Your task to perform on an android device: Show me popular videos on Youtube Image 0: 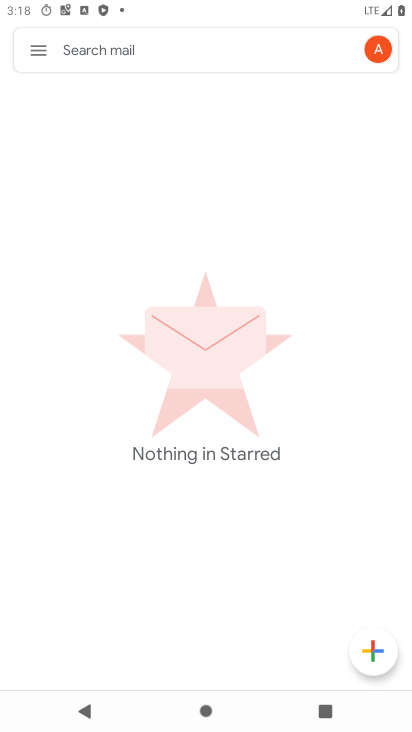
Step 0: press home button
Your task to perform on an android device: Show me popular videos on Youtube Image 1: 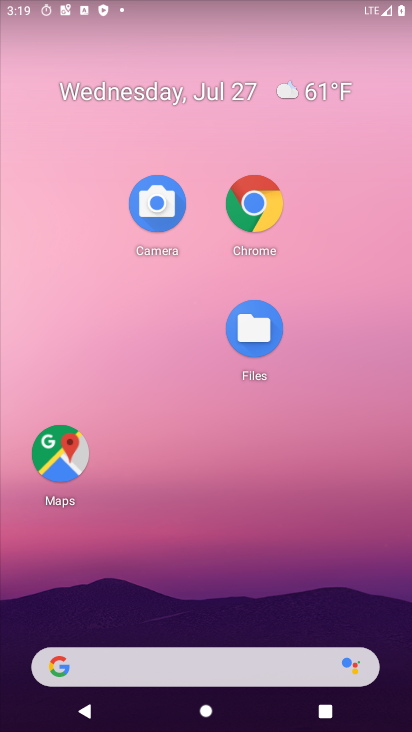
Step 1: drag from (178, 601) to (241, 198)
Your task to perform on an android device: Show me popular videos on Youtube Image 2: 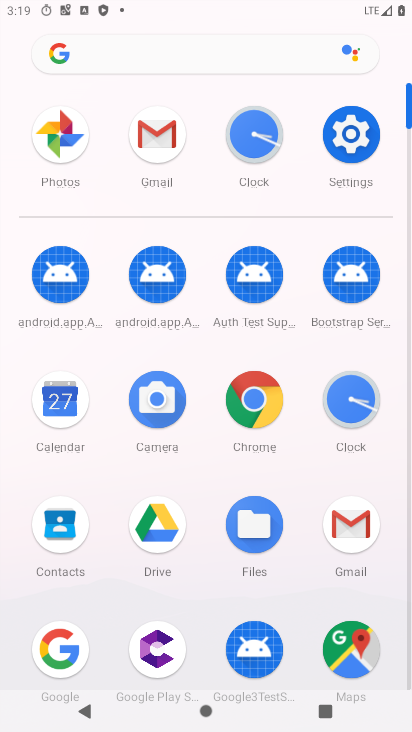
Step 2: drag from (188, 635) to (215, 271)
Your task to perform on an android device: Show me popular videos on Youtube Image 3: 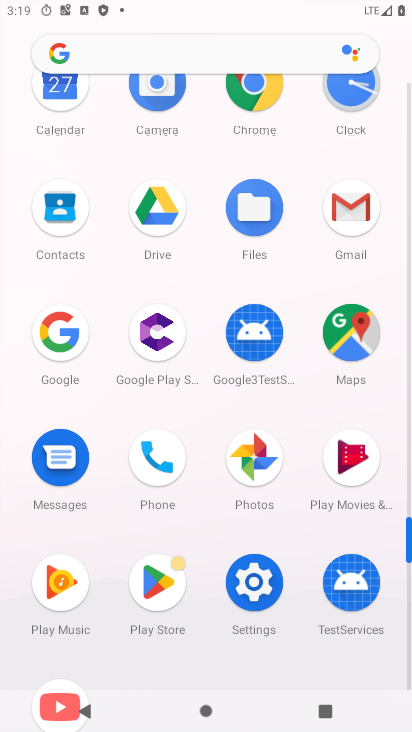
Step 3: drag from (78, 653) to (129, 339)
Your task to perform on an android device: Show me popular videos on Youtube Image 4: 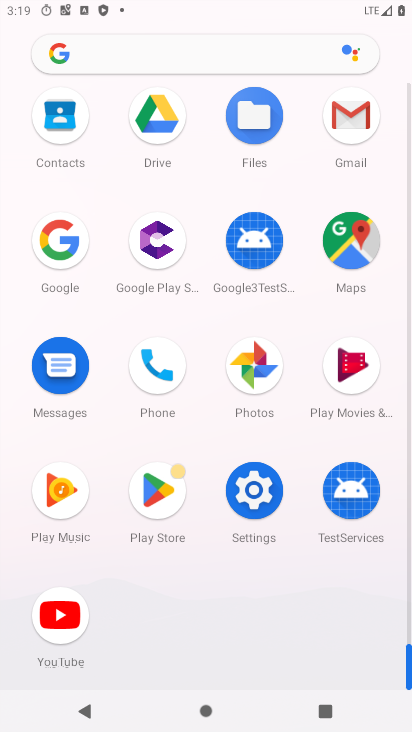
Step 4: click (65, 629)
Your task to perform on an android device: Show me popular videos on Youtube Image 5: 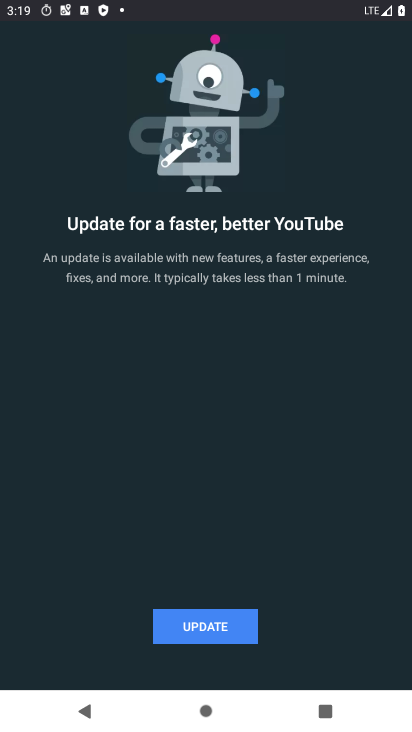
Step 5: click (201, 631)
Your task to perform on an android device: Show me popular videos on Youtube Image 6: 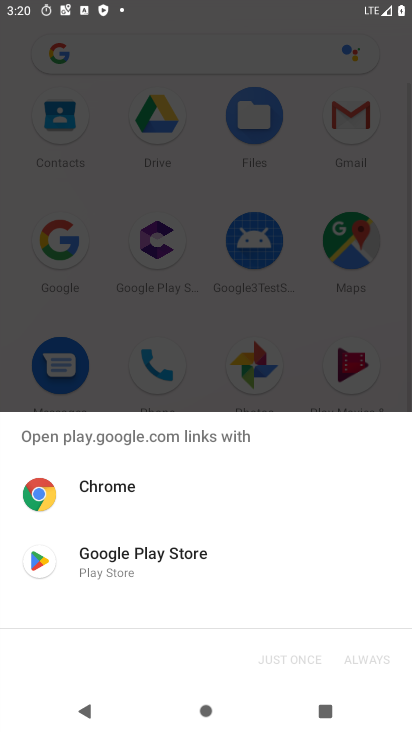
Step 6: click (105, 582)
Your task to perform on an android device: Show me popular videos on Youtube Image 7: 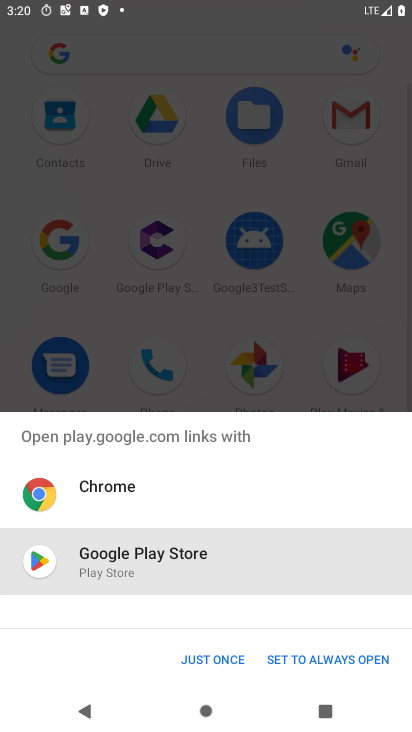
Step 7: click (205, 656)
Your task to perform on an android device: Show me popular videos on Youtube Image 8: 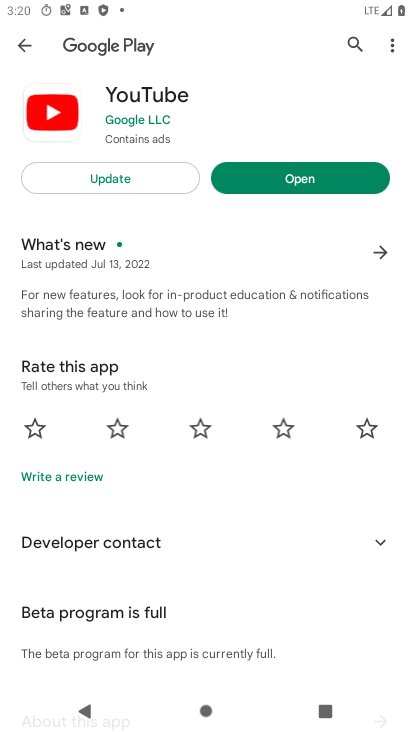
Step 8: click (154, 186)
Your task to perform on an android device: Show me popular videos on Youtube Image 9: 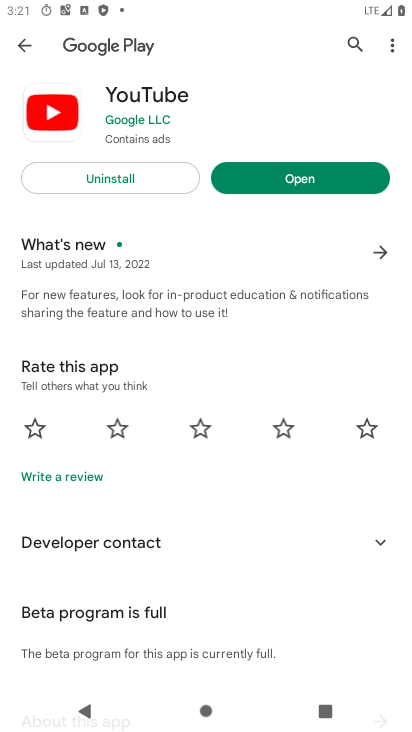
Step 9: click (269, 172)
Your task to perform on an android device: Show me popular videos on Youtube Image 10: 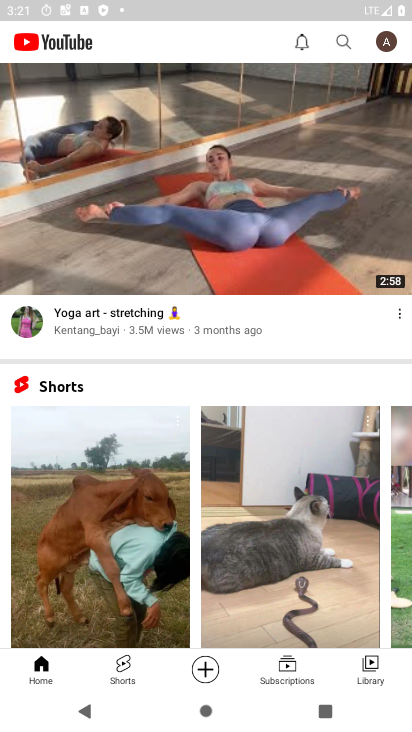
Step 10: click (344, 31)
Your task to perform on an android device: Show me popular videos on Youtube Image 11: 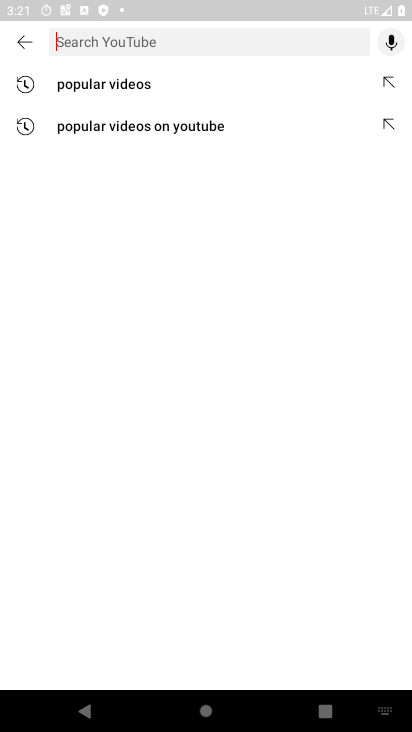
Step 11: click (129, 90)
Your task to perform on an android device: Show me popular videos on Youtube Image 12: 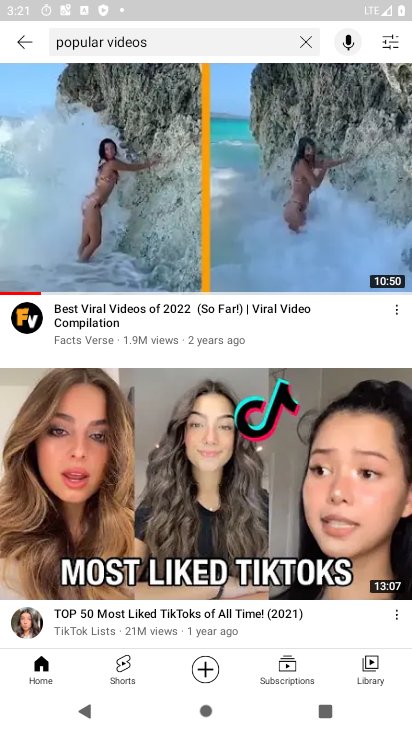
Step 12: task complete